Your task to perform on an android device: Open calendar and show me the third week of next month Image 0: 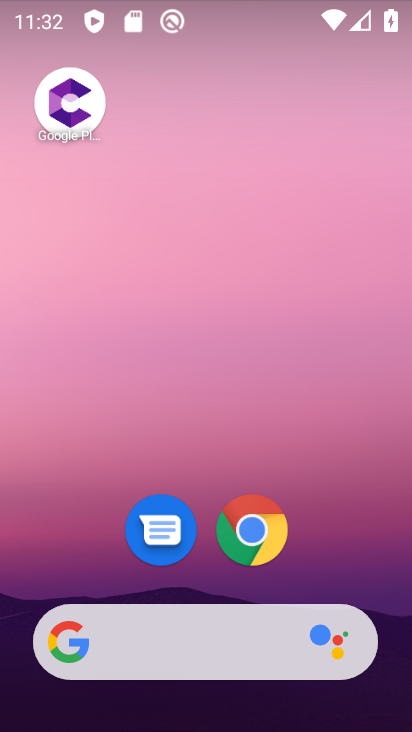
Step 0: drag from (258, 581) to (237, 215)
Your task to perform on an android device: Open calendar and show me the third week of next month Image 1: 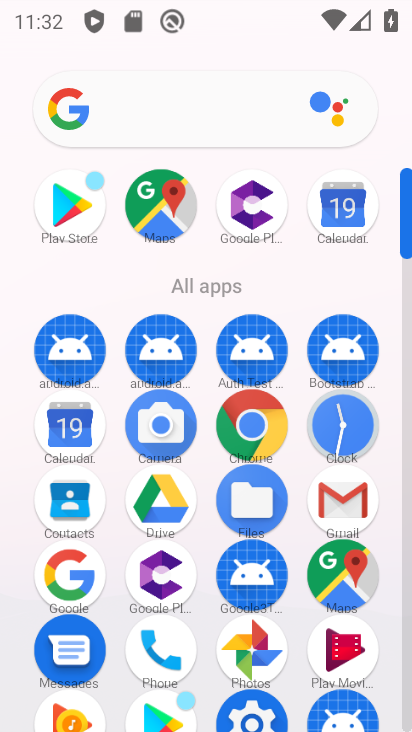
Step 1: click (76, 444)
Your task to perform on an android device: Open calendar and show me the third week of next month Image 2: 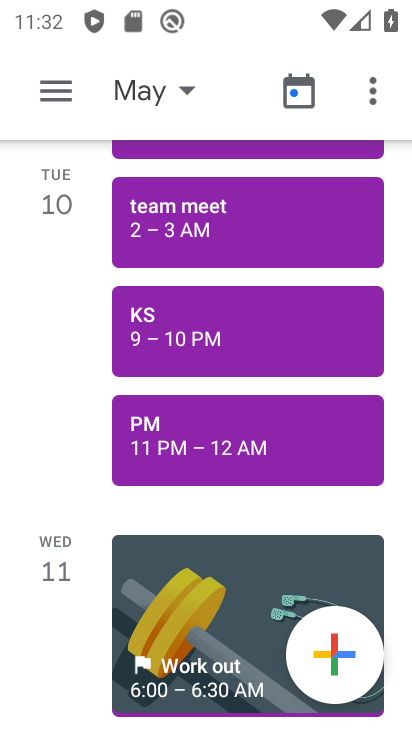
Step 2: click (128, 98)
Your task to perform on an android device: Open calendar and show me the third week of next month Image 3: 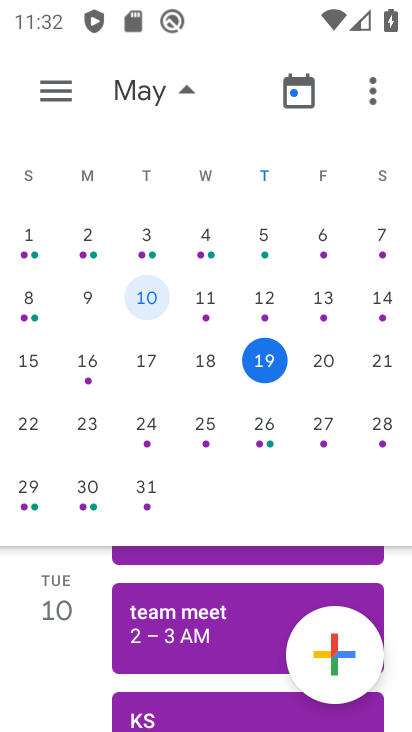
Step 3: drag from (320, 318) to (11, 336)
Your task to perform on an android device: Open calendar and show me the third week of next month Image 4: 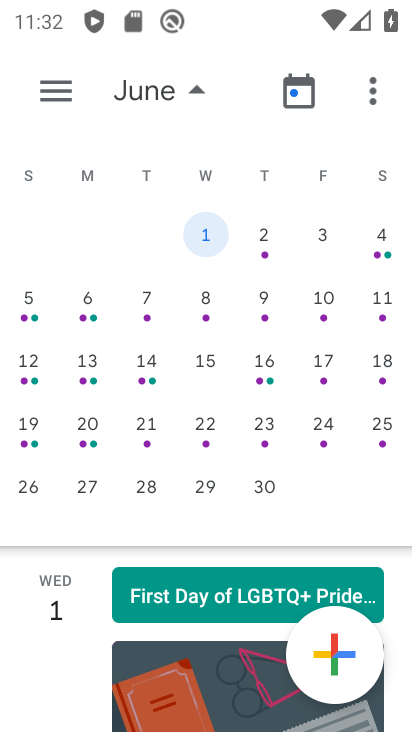
Step 4: click (31, 358)
Your task to perform on an android device: Open calendar and show me the third week of next month Image 5: 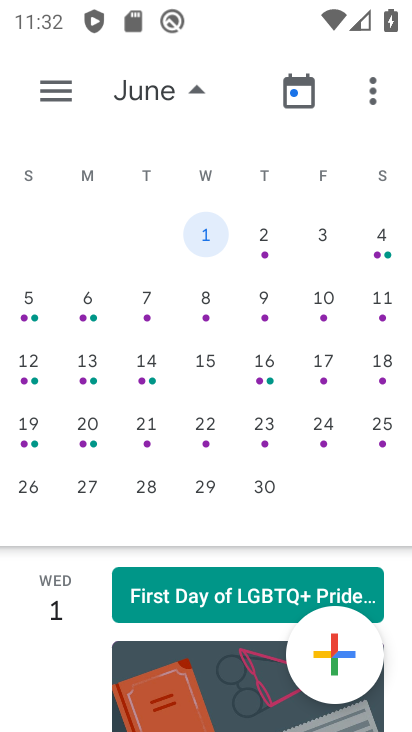
Step 5: click (25, 367)
Your task to perform on an android device: Open calendar and show me the third week of next month Image 6: 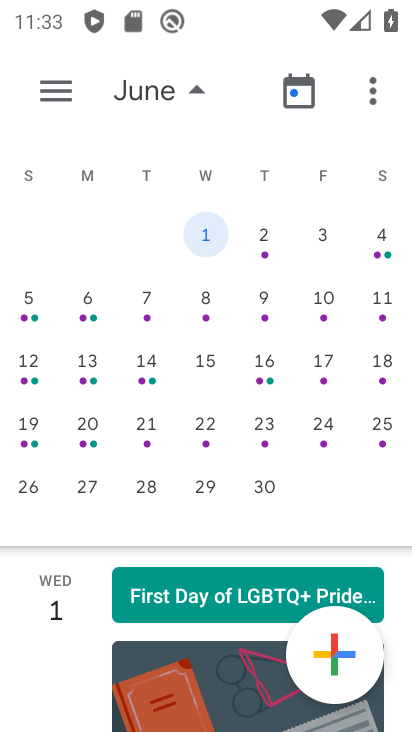
Step 6: task complete